Your task to perform on an android device: Is it going to rain tomorrow? Image 0: 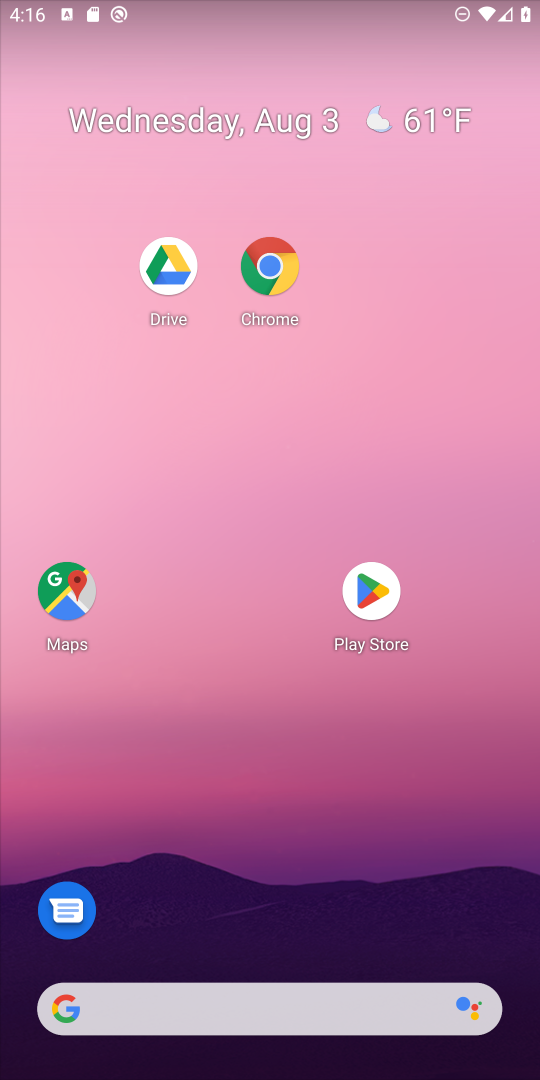
Step 0: drag from (315, 983) to (255, 66)
Your task to perform on an android device: Is it going to rain tomorrow? Image 1: 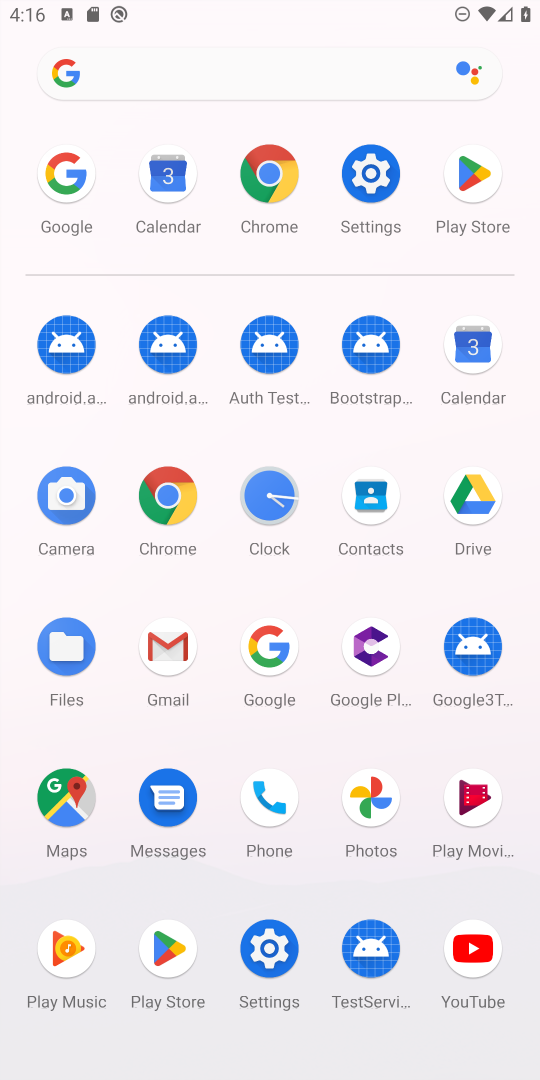
Step 1: click (478, 352)
Your task to perform on an android device: Is it going to rain tomorrow? Image 2: 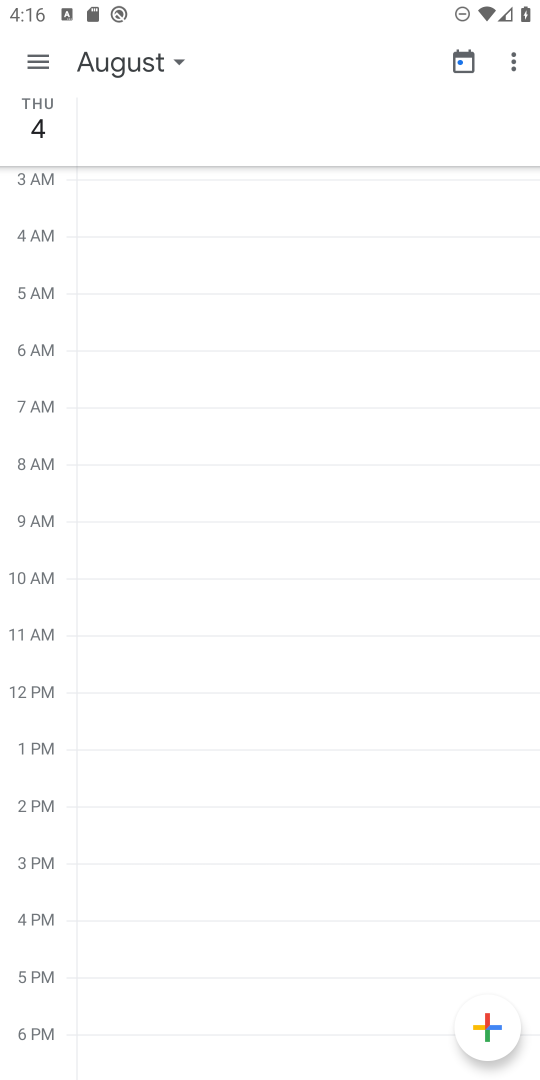
Step 2: click (165, 66)
Your task to perform on an android device: Is it going to rain tomorrow? Image 3: 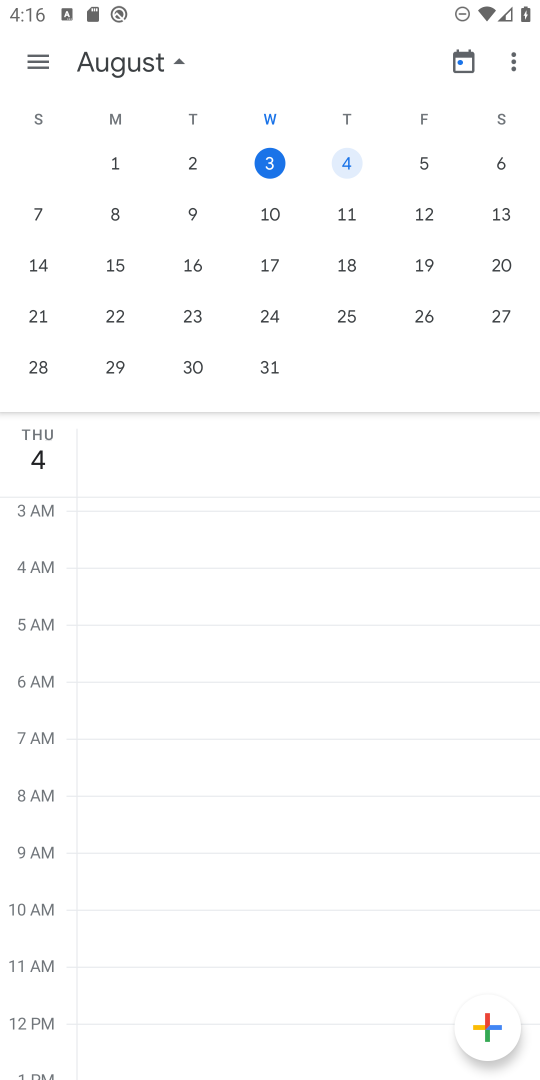
Step 3: press home button
Your task to perform on an android device: Is it going to rain tomorrow? Image 4: 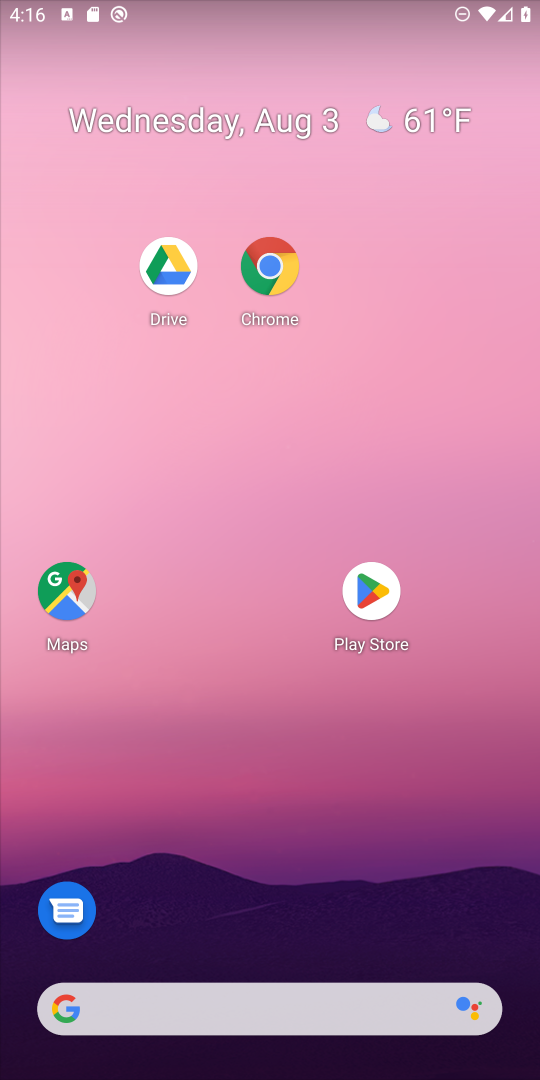
Step 4: drag from (29, 506) to (532, 541)
Your task to perform on an android device: Is it going to rain tomorrow? Image 5: 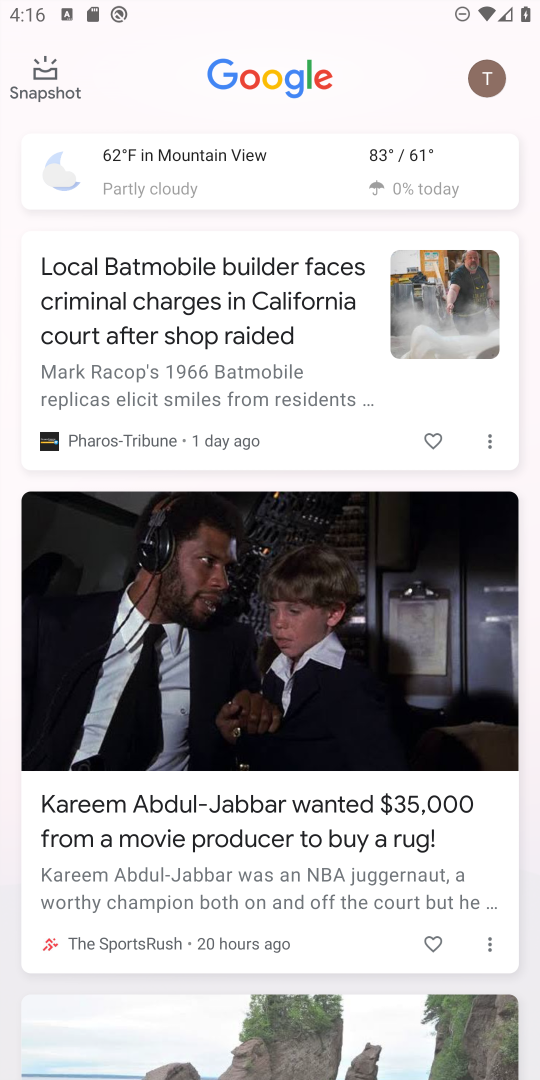
Step 5: click (350, 168)
Your task to perform on an android device: Is it going to rain tomorrow? Image 6: 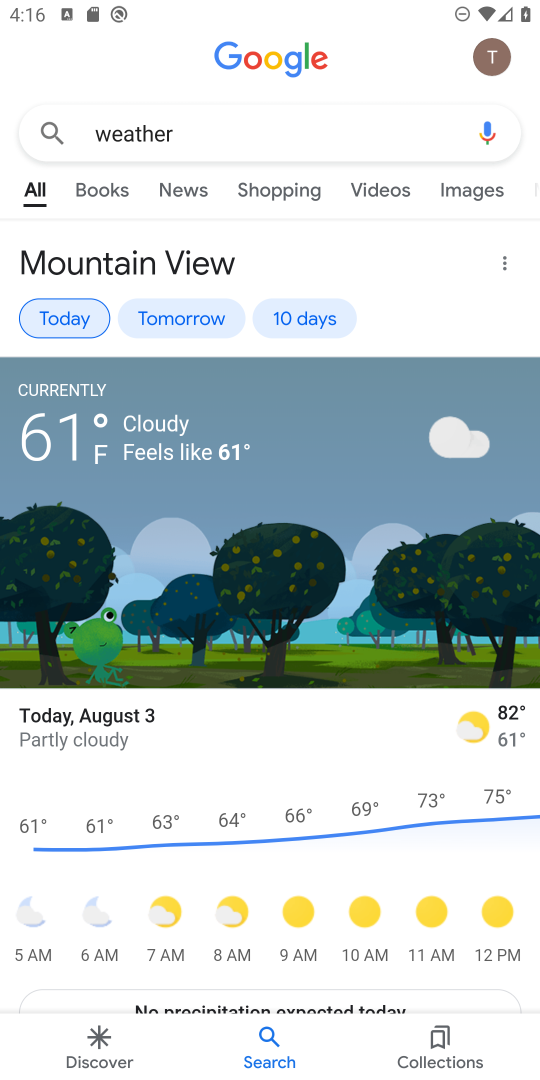
Step 6: click (199, 307)
Your task to perform on an android device: Is it going to rain tomorrow? Image 7: 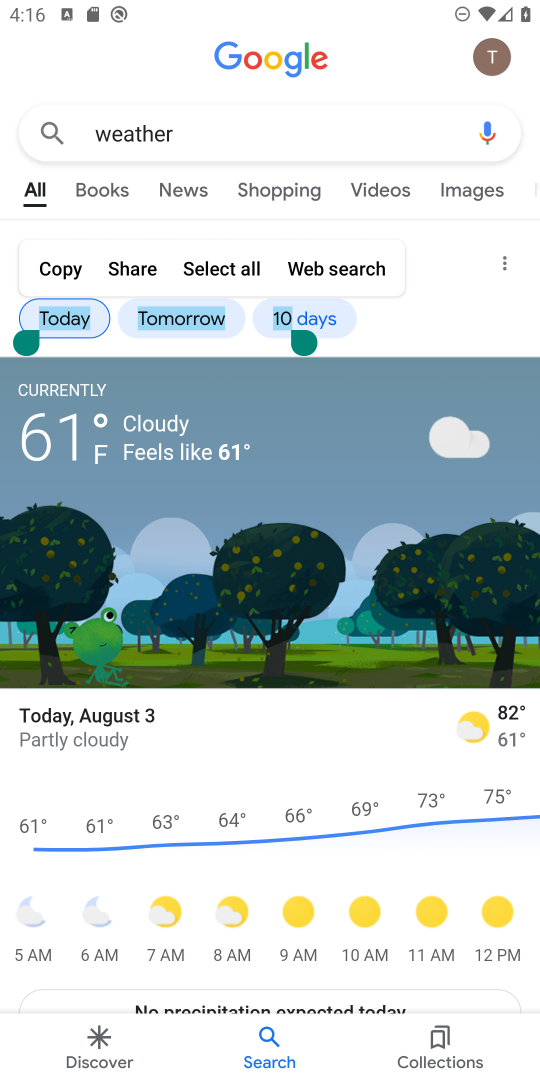
Step 7: click (192, 323)
Your task to perform on an android device: Is it going to rain tomorrow? Image 8: 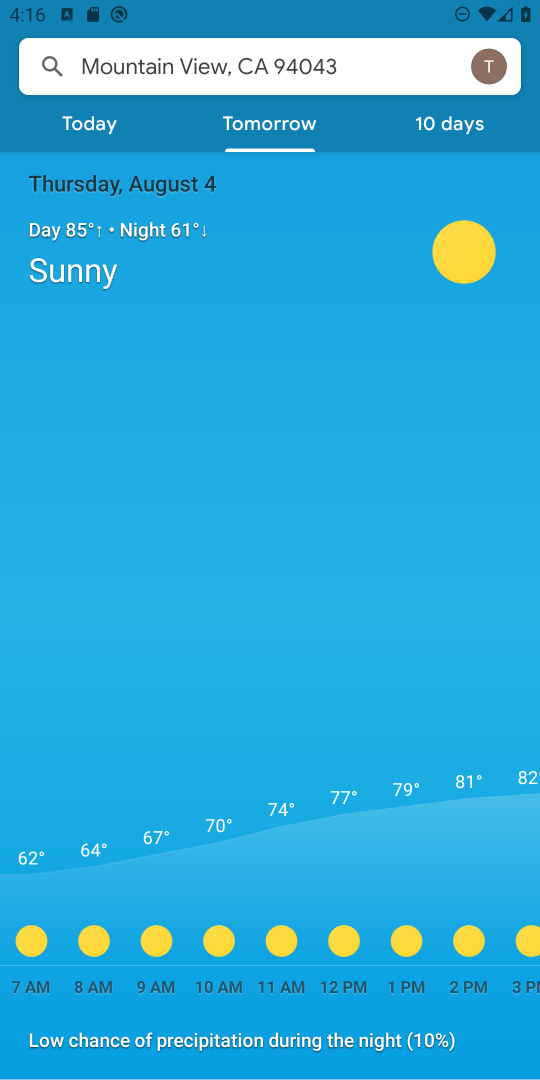
Step 8: task complete